Your task to perform on an android device: Open maps Image 0: 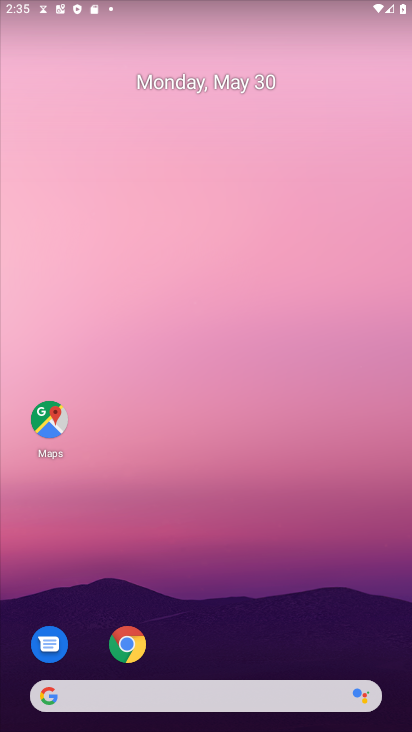
Step 0: click (44, 424)
Your task to perform on an android device: Open maps Image 1: 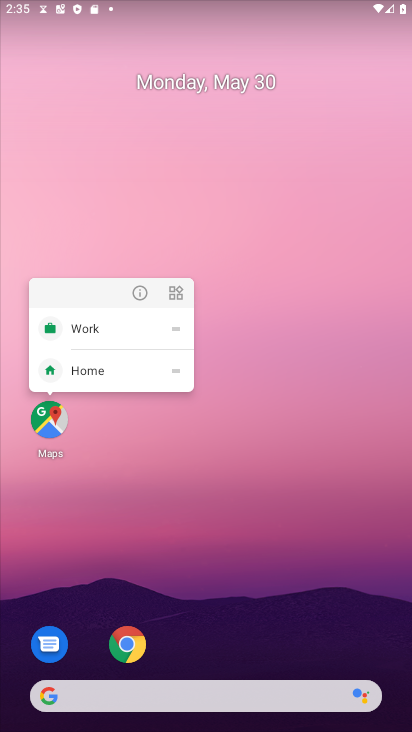
Step 1: click (49, 427)
Your task to perform on an android device: Open maps Image 2: 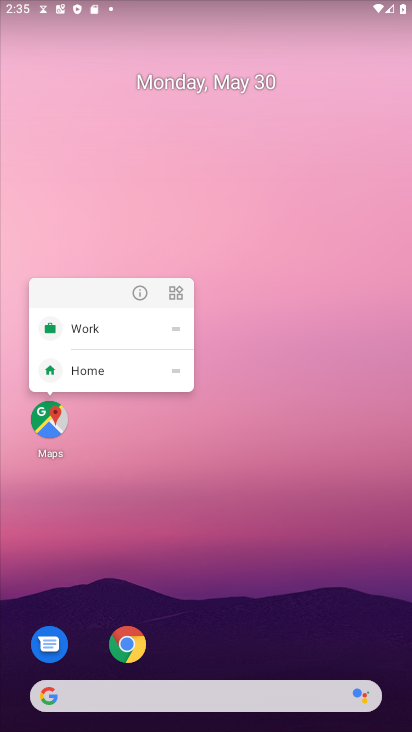
Step 2: click (49, 427)
Your task to perform on an android device: Open maps Image 3: 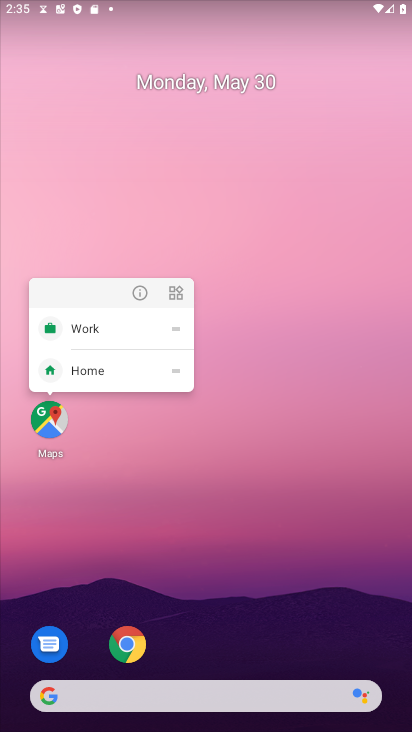
Step 3: click (32, 425)
Your task to perform on an android device: Open maps Image 4: 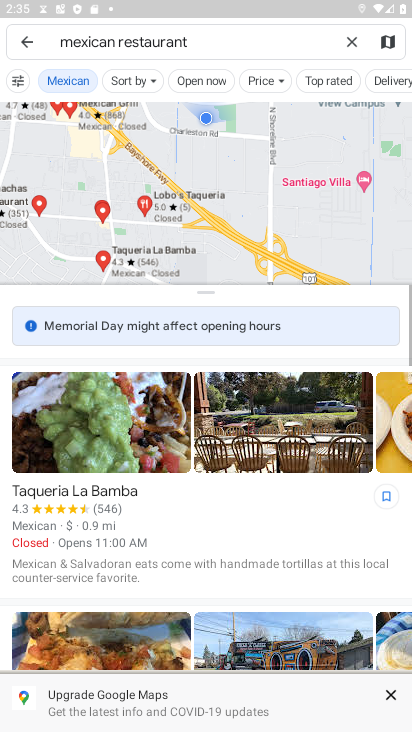
Step 4: click (351, 44)
Your task to perform on an android device: Open maps Image 5: 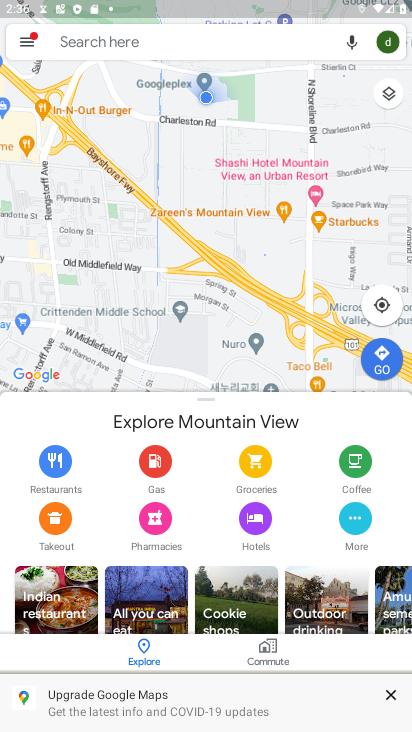
Step 5: task complete